Your task to perform on an android device: open chrome privacy settings Image 0: 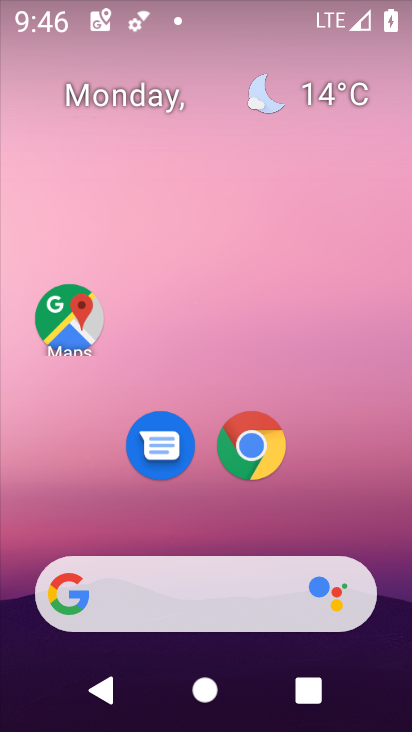
Step 0: drag from (200, 527) to (198, 43)
Your task to perform on an android device: open chrome privacy settings Image 1: 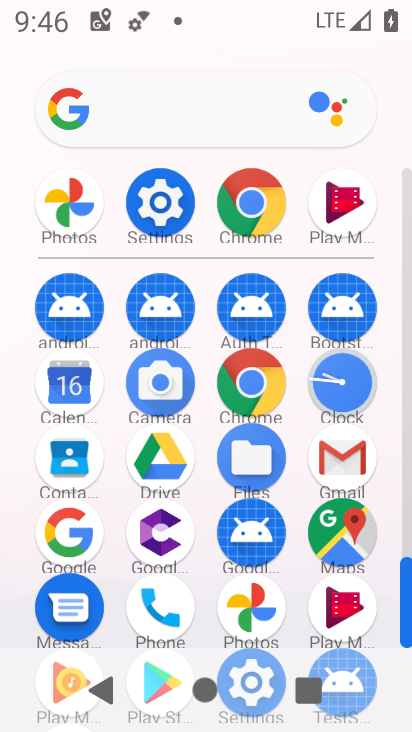
Step 1: click (246, 197)
Your task to perform on an android device: open chrome privacy settings Image 2: 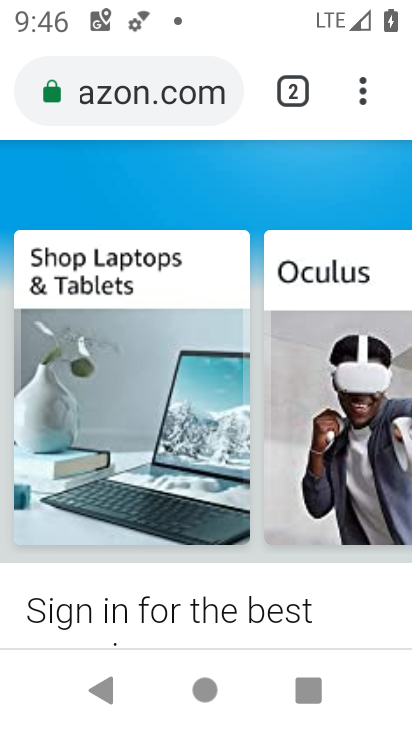
Step 2: click (360, 84)
Your task to perform on an android device: open chrome privacy settings Image 3: 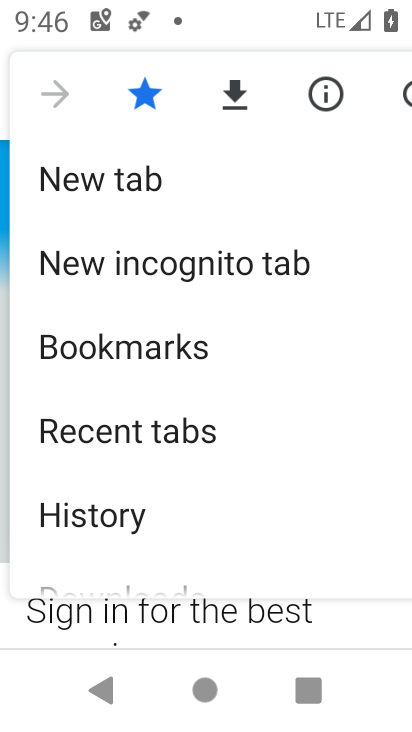
Step 3: drag from (163, 523) to (185, 122)
Your task to perform on an android device: open chrome privacy settings Image 4: 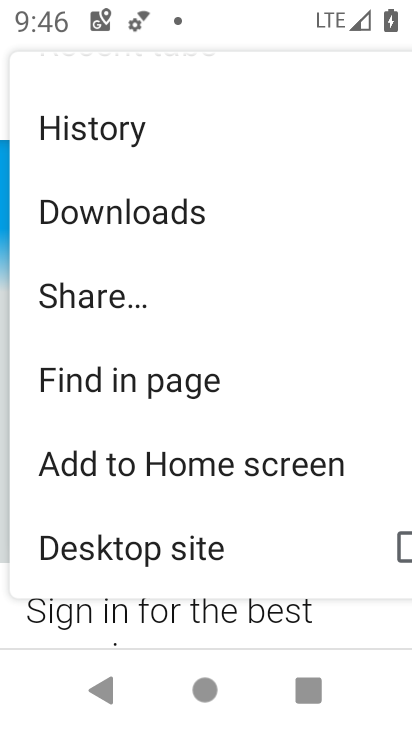
Step 4: drag from (247, 543) to (239, 164)
Your task to perform on an android device: open chrome privacy settings Image 5: 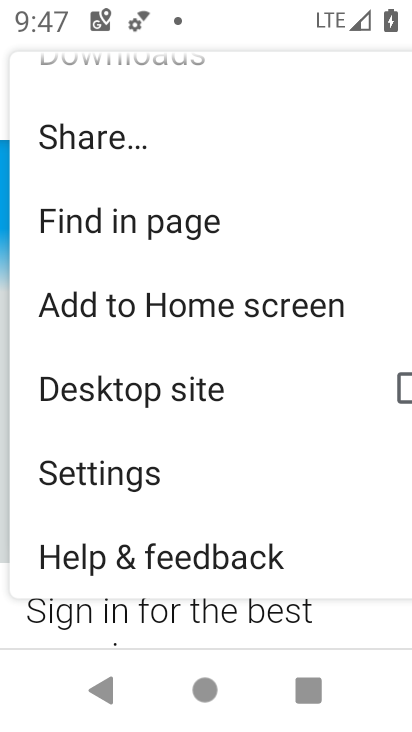
Step 5: click (175, 471)
Your task to perform on an android device: open chrome privacy settings Image 6: 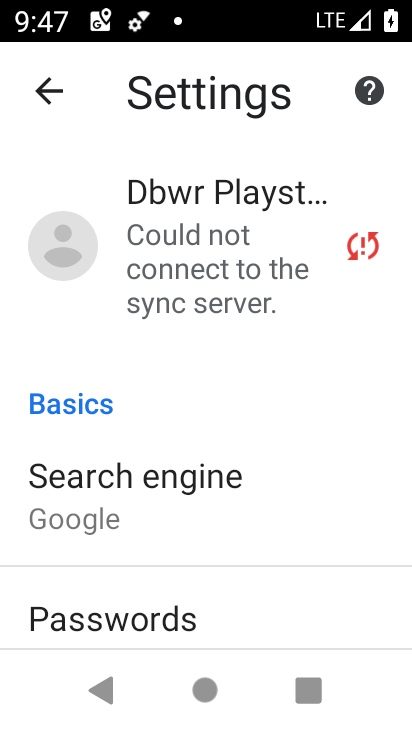
Step 6: drag from (205, 609) to (232, 130)
Your task to perform on an android device: open chrome privacy settings Image 7: 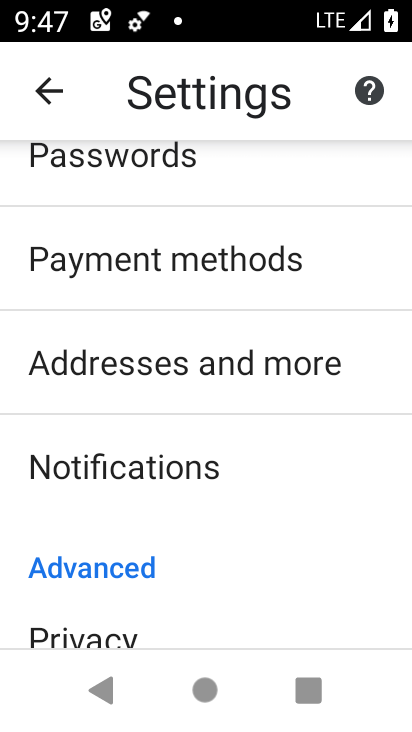
Step 7: click (154, 628)
Your task to perform on an android device: open chrome privacy settings Image 8: 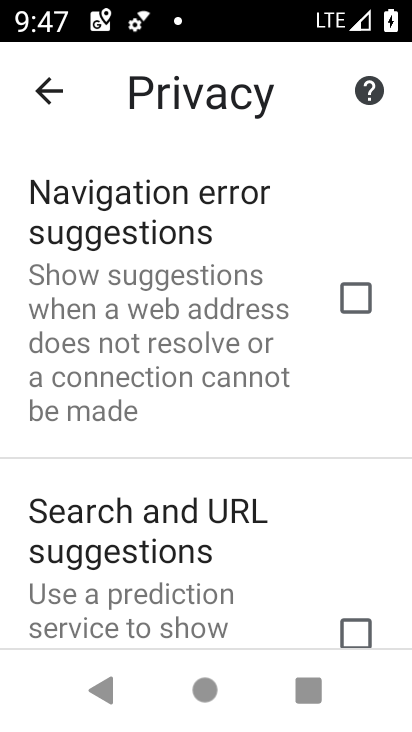
Step 8: task complete